Your task to perform on an android device: Open CNN.com Image 0: 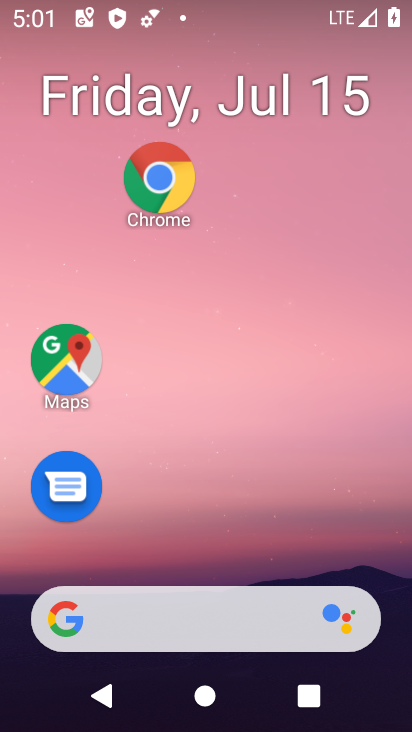
Step 0: click (156, 162)
Your task to perform on an android device: Open CNN.com Image 1: 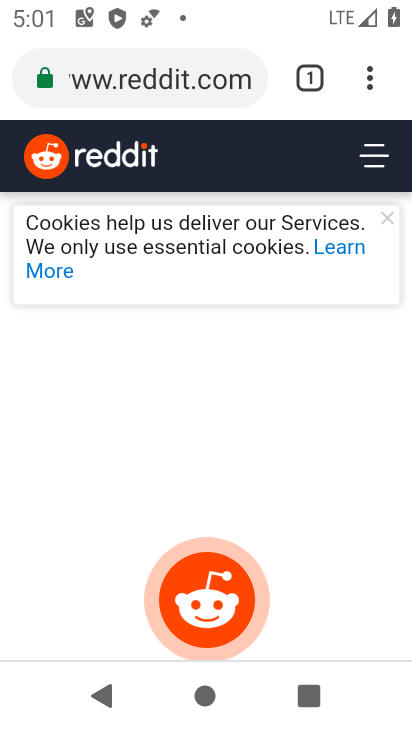
Step 1: press back button
Your task to perform on an android device: Open CNN.com Image 2: 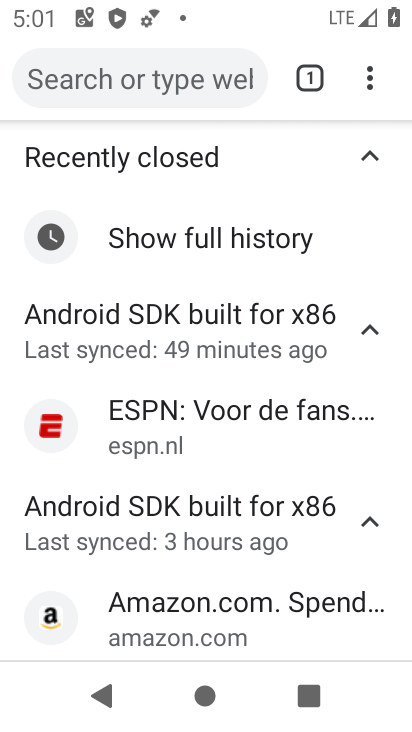
Step 2: press back button
Your task to perform on an android device: Open CNN.com Image 3: 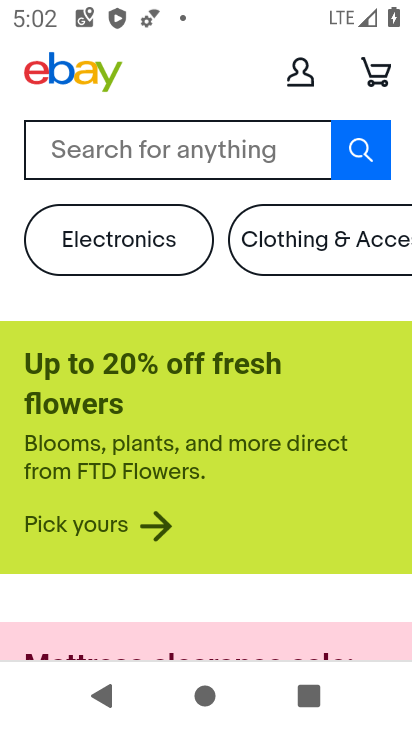
Step 3: press back button
Your task to perform on an android device: Open CNN.com Image 4: 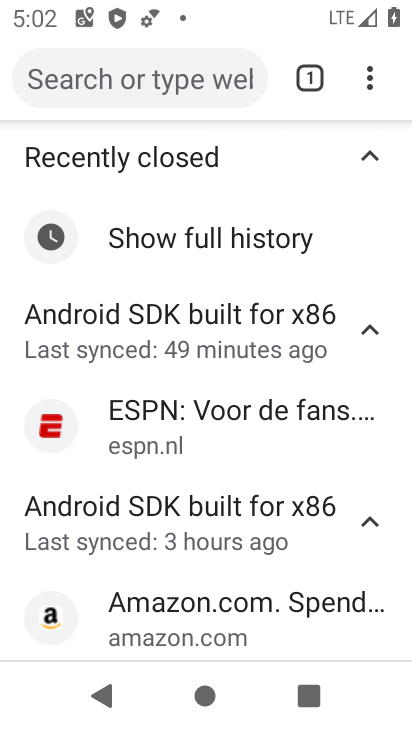
Step 4: press back button
Your task to perform on an android device: Open CNN.com Image 5: 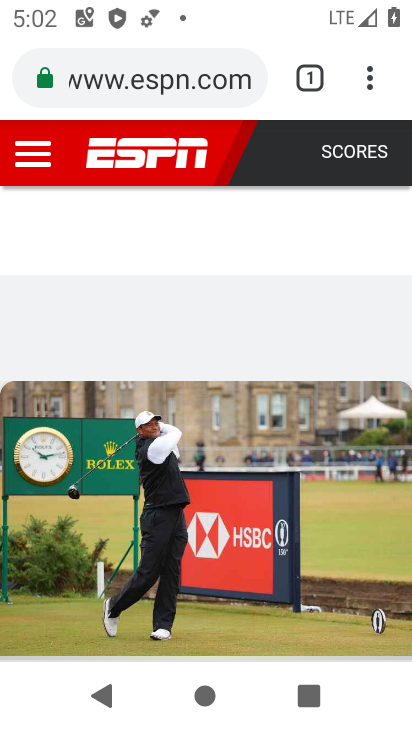
Step 5: click (182, 83)
Your task to perform on an android device: Open CNN.com Image 6: 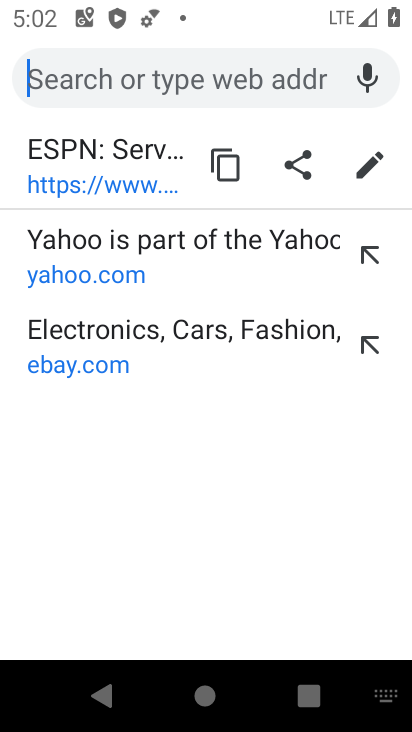
Step 6: type "www.cnn.com"
Your task to perform on an android device: Open CNN.com Image 7: 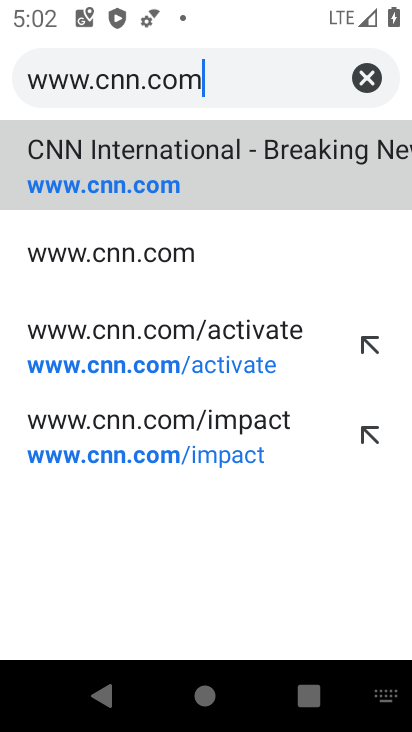
Step 7: click (220, 159)
Your task to perform on an android device: Open CNN.com Image 8: 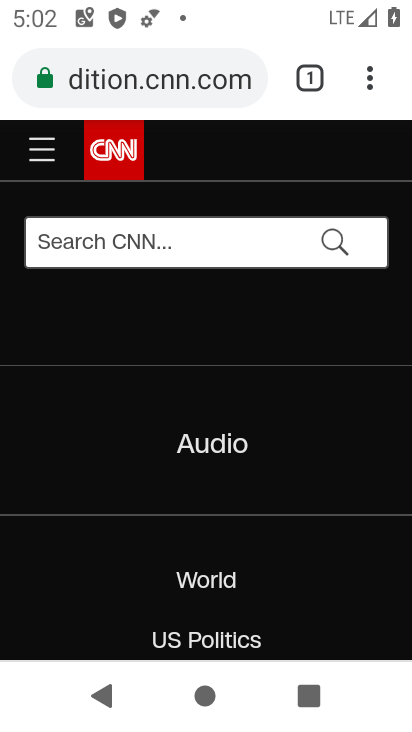
Step 8: task complete